Your task to perform on an android device: turn off javascript in the chrome app Image 0: 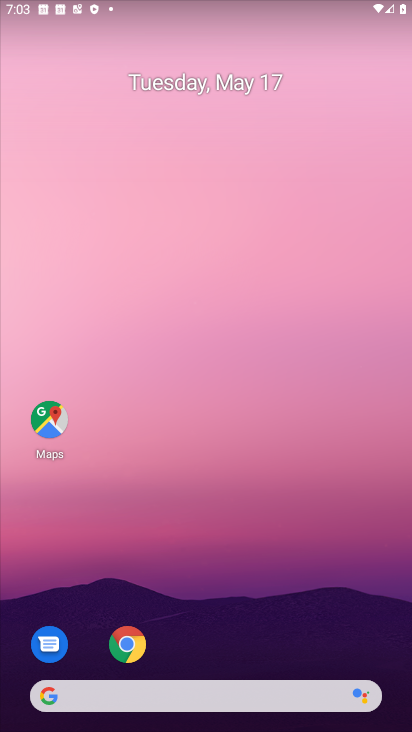
Step 0: drag from (336, 630) to (298, 0)
Your task to perform on an android device: turn off javascript in the chrome app Image 1: 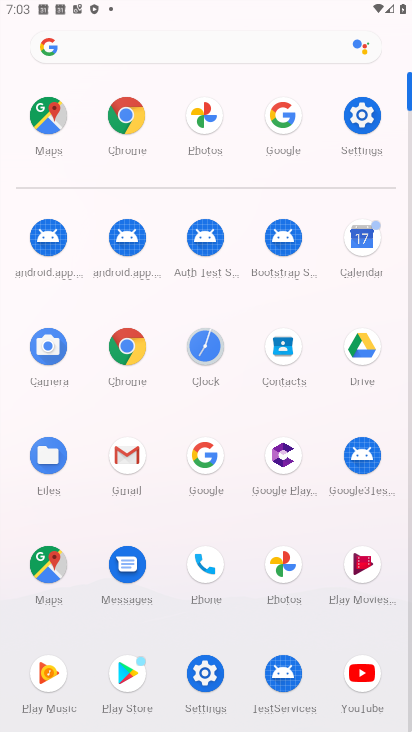
Step 1: click (132, 343)
Your task to perform on an android device: turn off javascript in the chrome app Image 2: 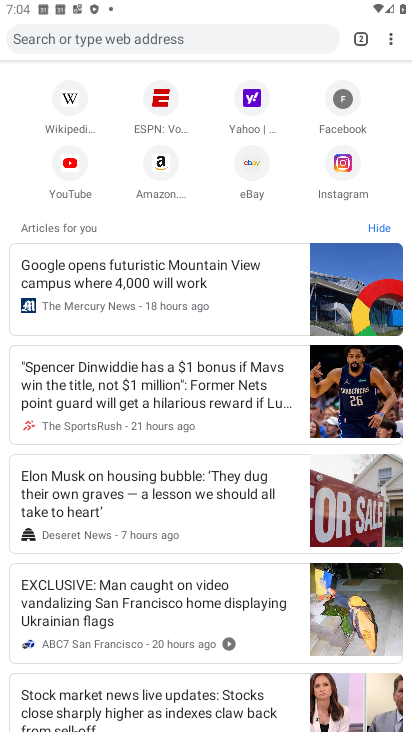
Step 2: click (394, 33)
Your task to perform on an android device: turn off javascript in the chrome app Image 3: 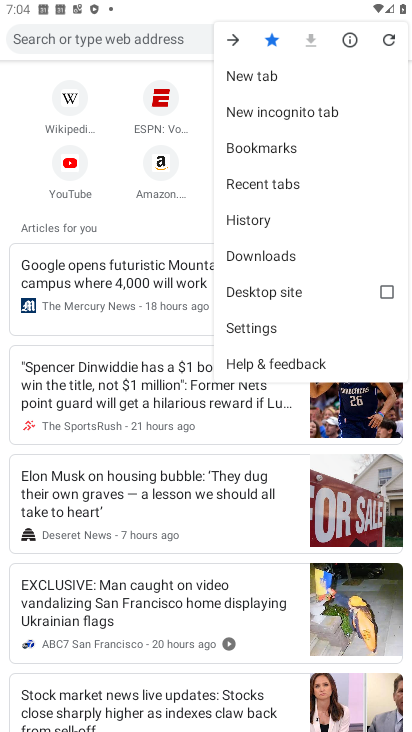
Step 3: click (275, 325)
Your task to perform on an android device: turn off javascript in the chrome app Image 4: 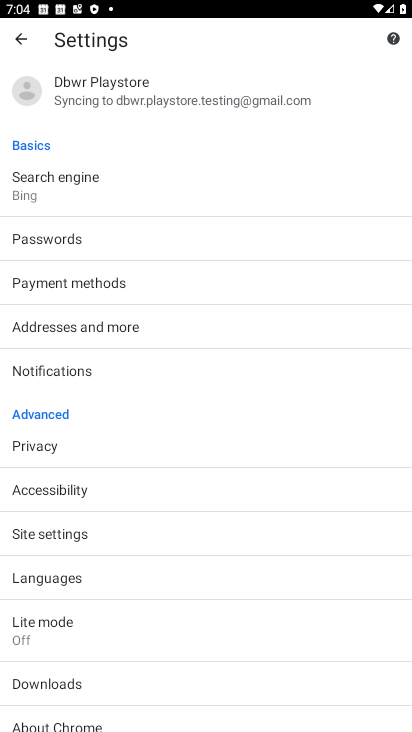
Step 4: click (102, 524)
Your task to perform on an android device: turn off javascript in the chrome app Image 5: 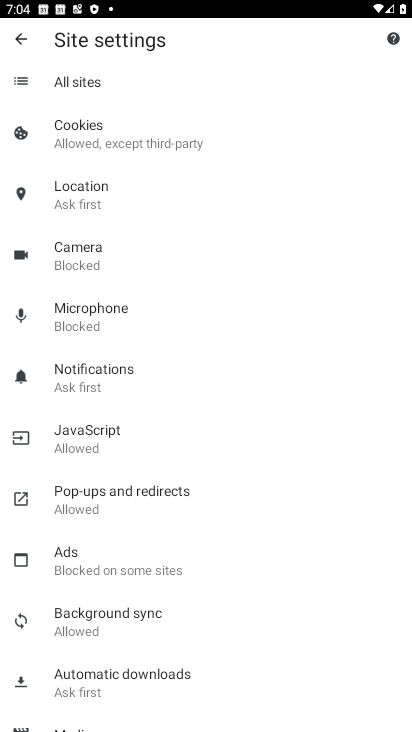
Step 5: click (97, 442)
Your task to perform on an android device: turn off javascript in the chrome app Image 6: 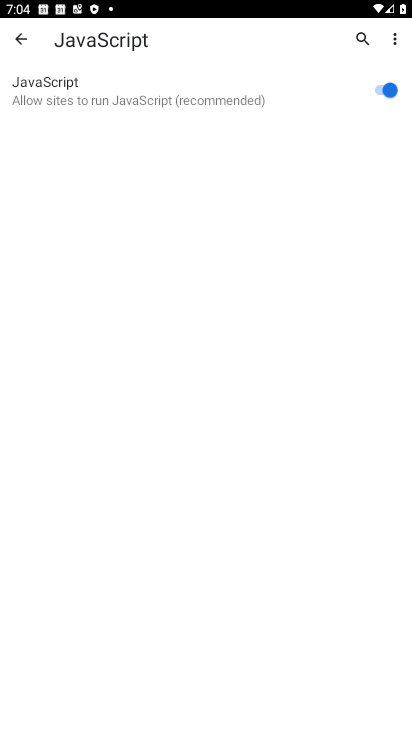
Step 6: click (385, 93)
Your task to perform on an android device: turn off javascript in the chrome app Image 7: 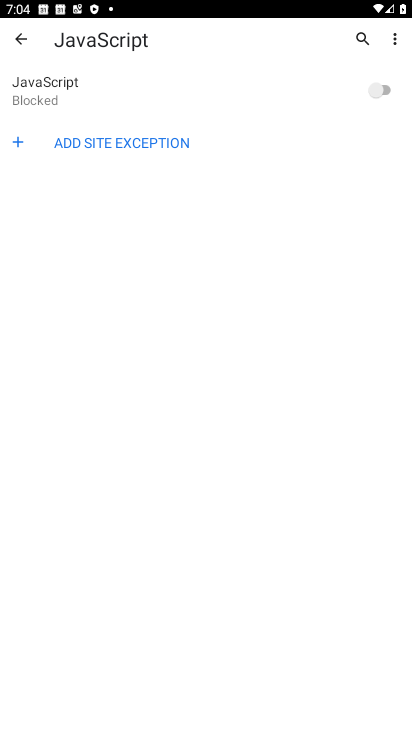
Step 7: task complete